Your task to perform on an android device: Toggle the flashlight Image 0: 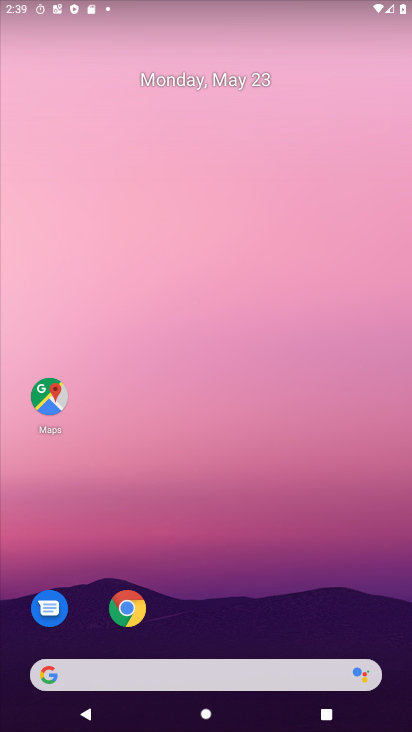
Step 0: drag from (204, 632) to (241, 145)
Your task to perform on an android device: Toggle the flashlight Image 1: 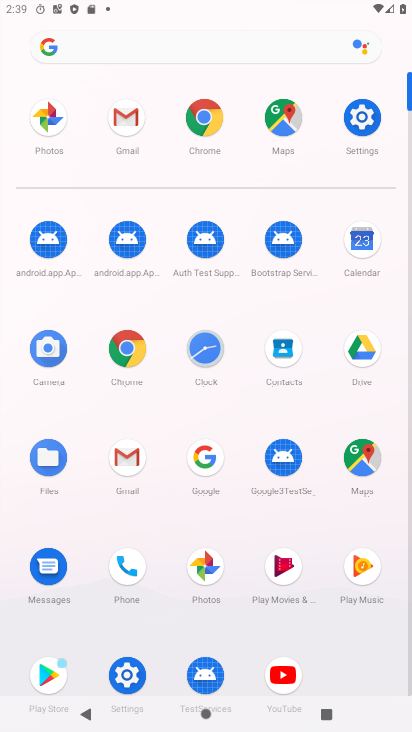
Step 1: click (356, 122)
Your task to perform on an android device: Toggle the flashlight Image 2: 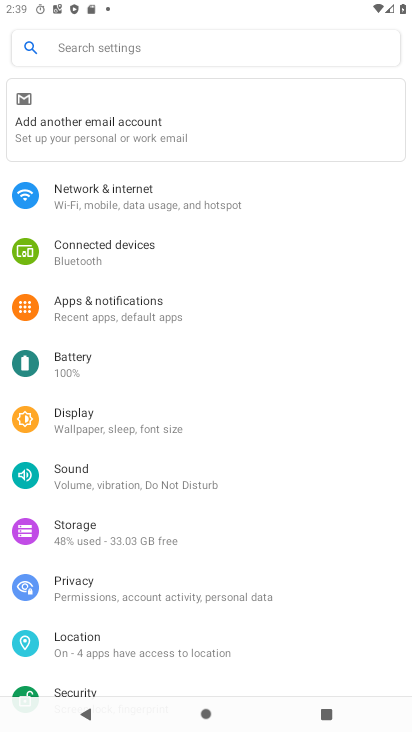
Step 2: click (152, 49)
Your task to perform on an android device: Toggle the flashlight Image 3: 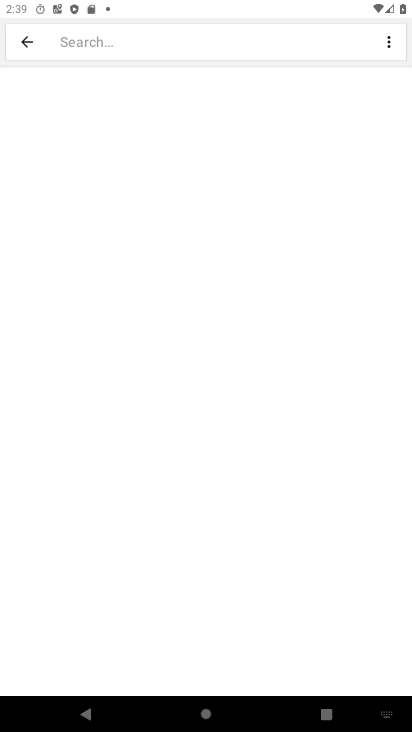
Step 3: type "flashlight"
Your task to perform on an android device: Toggle the flashlight Image 4: 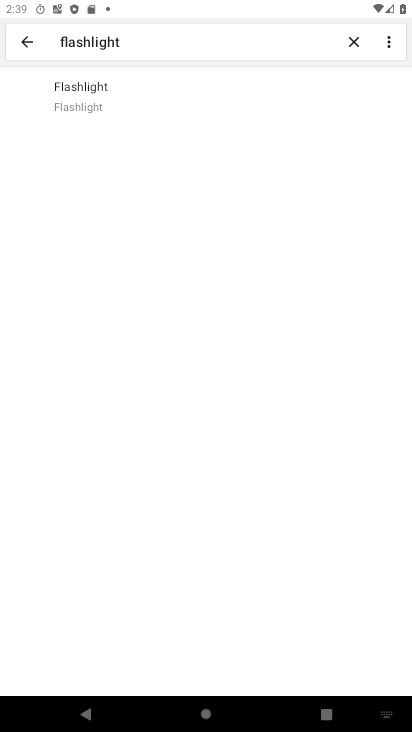
Step 4: click (124, 100)
Your task to perform on an android device: Toggle the flashlight Image 5: 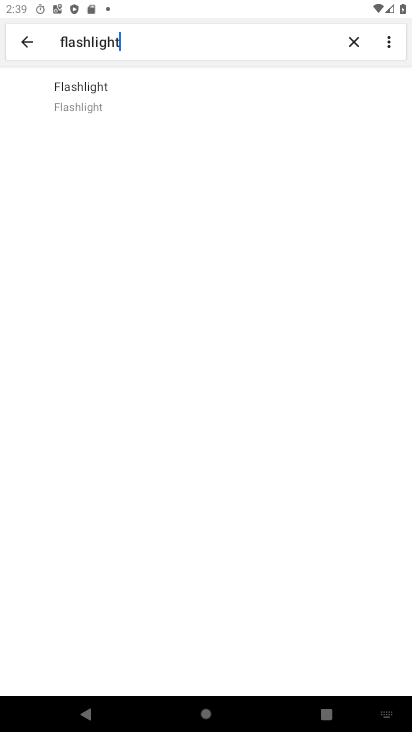
Step 5: click (120, 95)
Your task to perform on an android device: Toggle the flashlight Image 6: 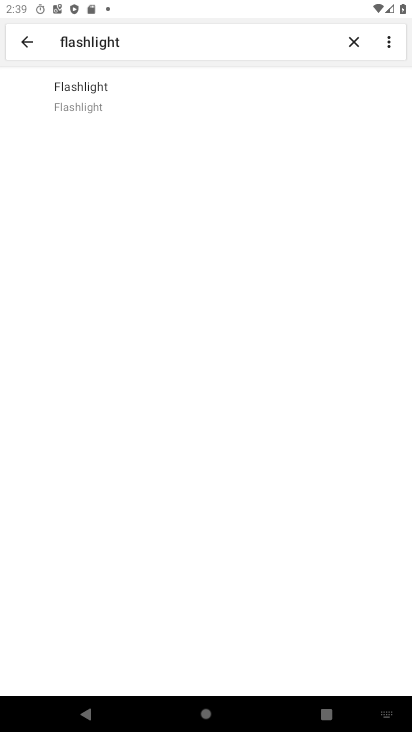
Step 6: click (120, 94)
Your task to perform on an android device: Toggle the flashlight Image 7: 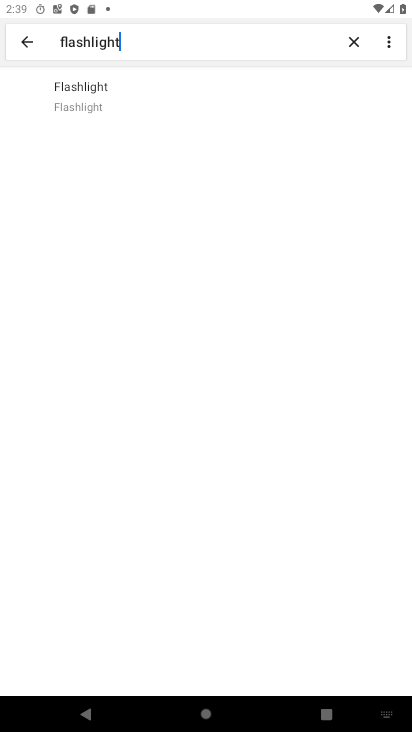
Step 7: task complete